Your task to perform on an android device: visit the assistant section in the google photos Image 0: 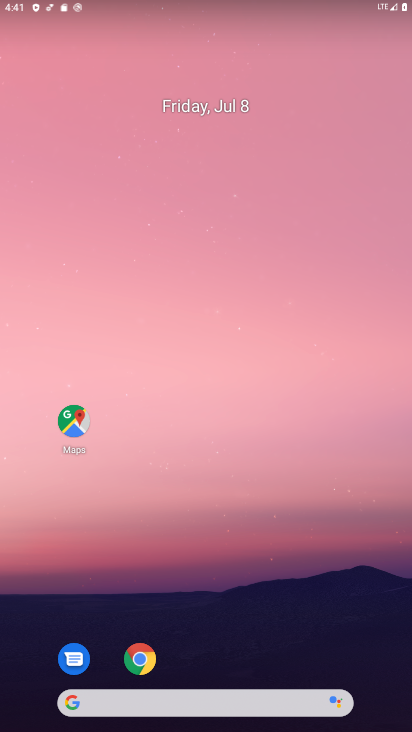
Step 0: drag from (273, 634) to (318, 49)
Your task to perform on an android device: visit the assistant section in the google photos Image 1: 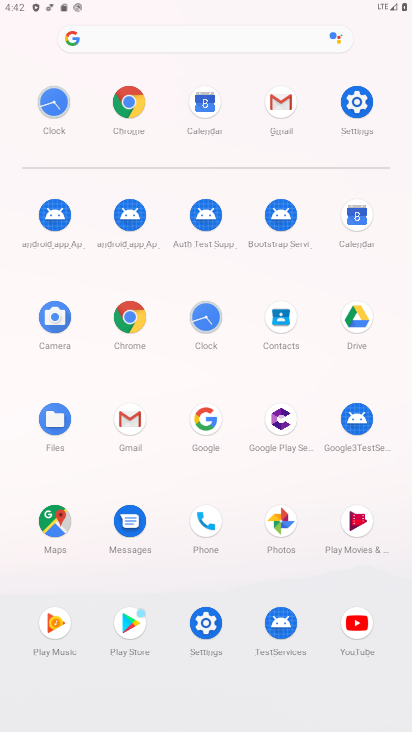
Step 1: click (293, 537)
Your task to perform on an android device: visit the assistant section in the google photos Image 2: 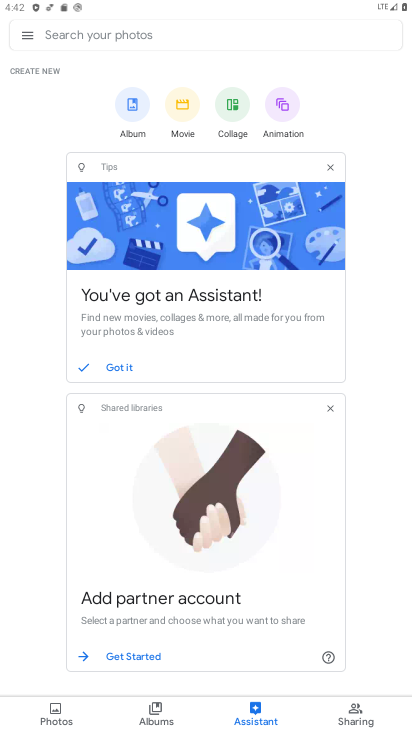
Step 2: task complete